Your task to perform on an android device: add a contact in the contacts app Image 0: 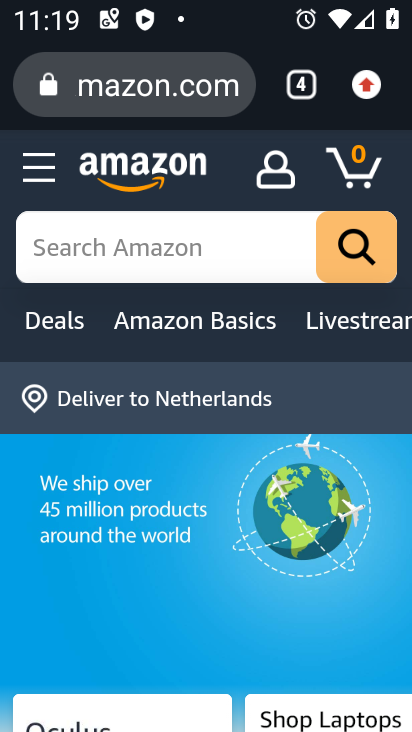
Step 0: press home button
Your task to perform on an android device: add a contact in the contacts app Image 1: 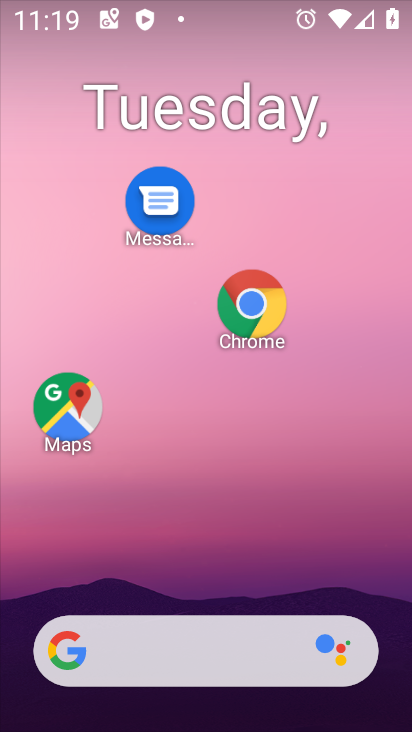
Step 1: drag from (232, 372) to (264, 205)
Your task to perform on an android device: add a contact in the contacts app Image 2: 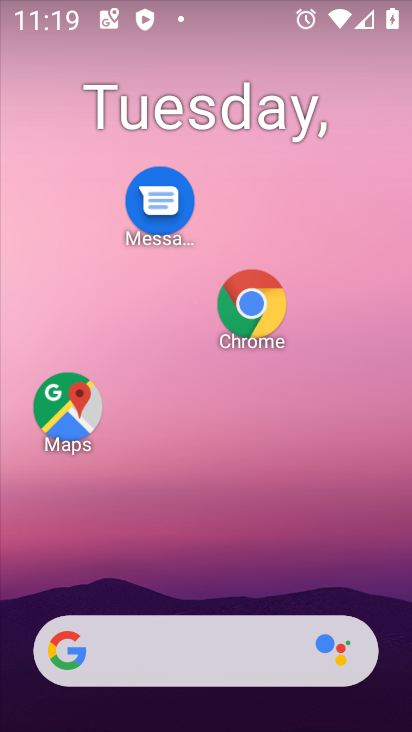
Step 2: drag from (268, 408) to (313, 206)
Your task to perform on an android device: add a contact in the contacts app Image 3: 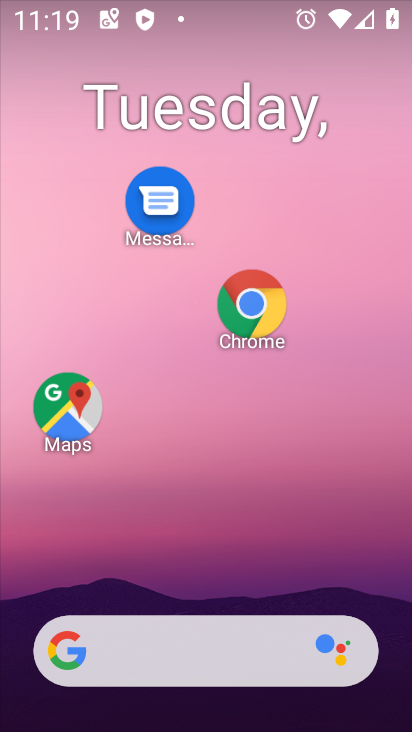
Step 3: drag from (251, 576) to (365, 140)
Your task to perform on an android device: add a contact in the contacts app Image 4: 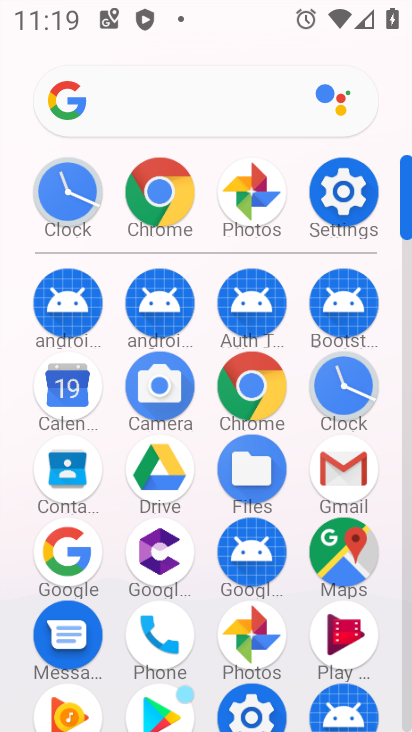
Step 4: click (152, 636)
Your task to perform on an android device: add a contact in the contacts app Image 5: 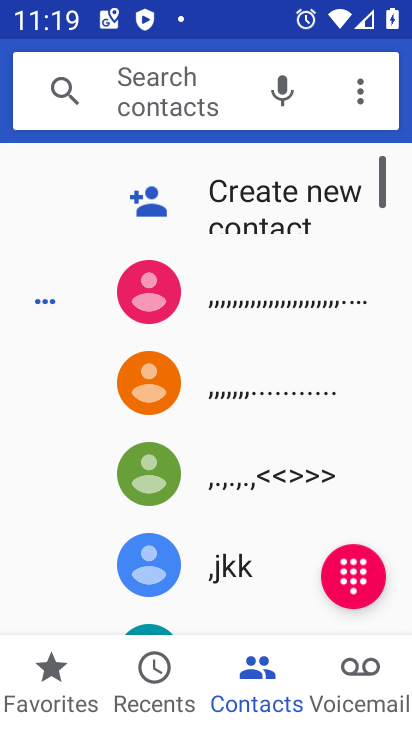
Step 5: click (265, 200)
Your task to perform on an android device: add a contact in the contacts app Image 6: 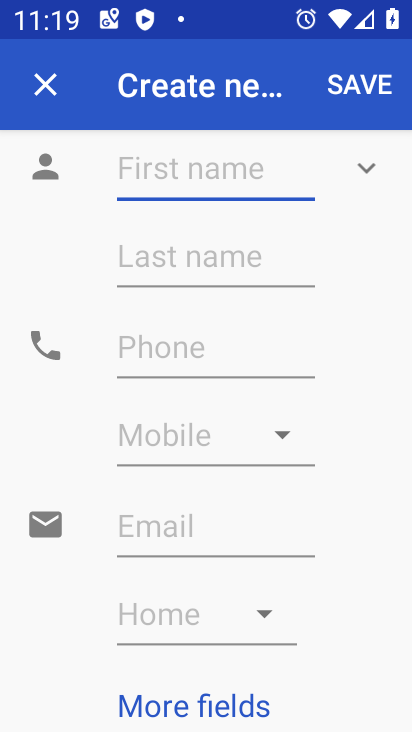
Step 6: click (246, 162)
Your task to perform on an android device: add a contact in the contacts app Image 7: 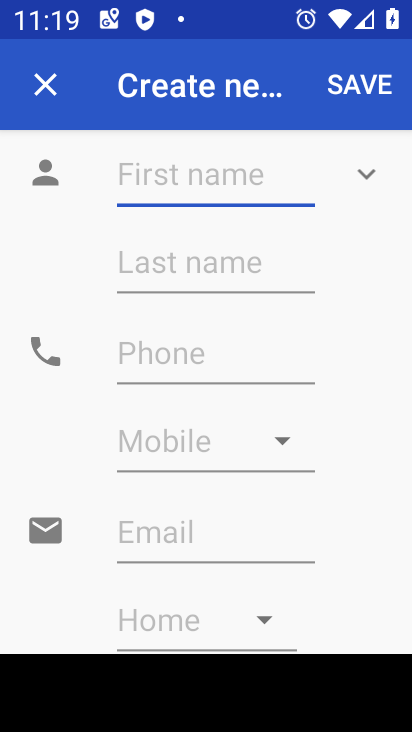
Step 7: type "xxxxxxxxxxxxxx"
Your task to perform on an android device: add a contact in the contacts app Image 8: 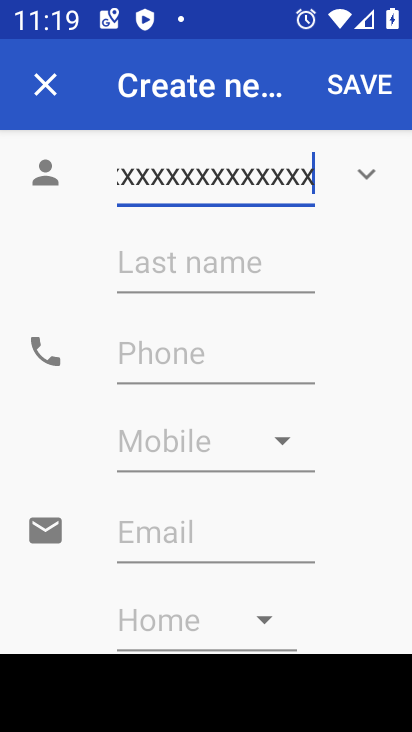
Step 8: click (210, 342)
Your task to perform on an android device: add a contact in the contacts app Image 9: 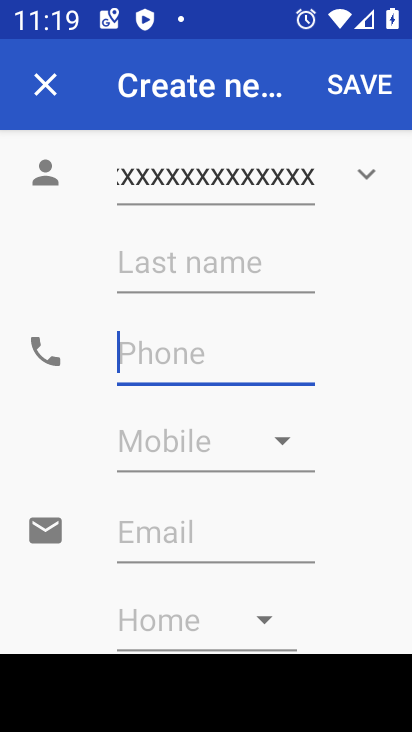
Step 9: type "8787787888787"
Your task to perform on an android device: add a contact in the contacts app Image 10: 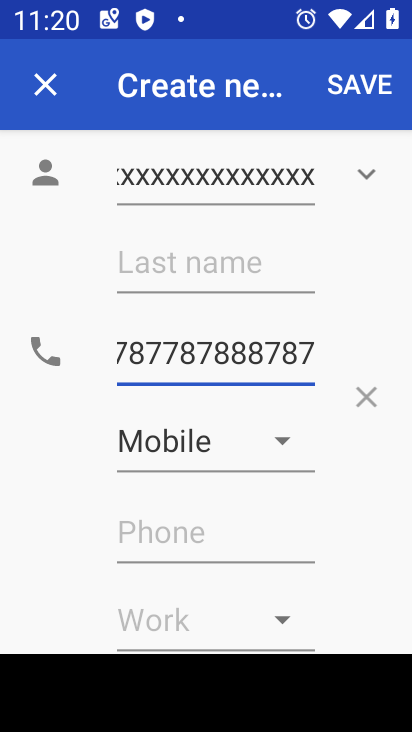
Step 10: click (342, 95)
Your task to perform on an android device: add a contact in the contacts app Image 11: 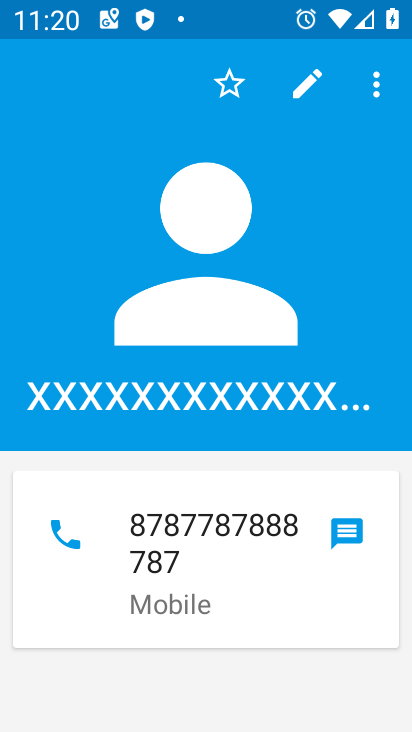
Step 11: task complete